Your task to perform on an android device: toggle sleep mode Image 0: 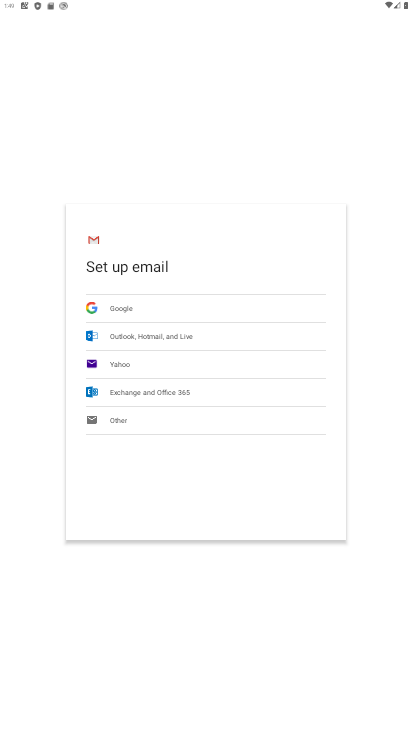
Step 0: press home button
Your task to perform on an android device: toggle sleep mode Image 1: 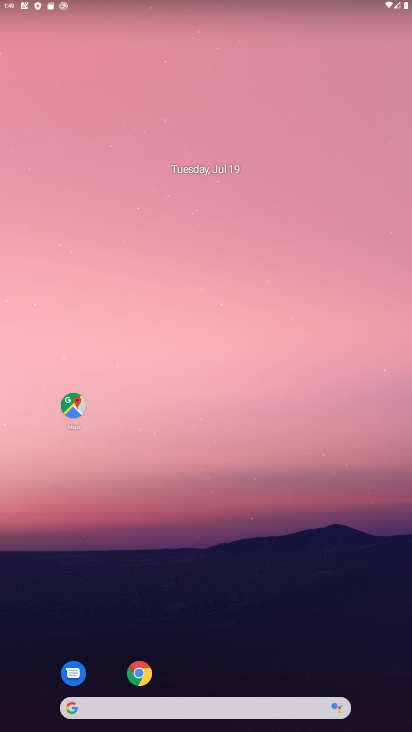
Step 1: drag from (214, 632) to (206, 236)
Your task to perform on an android device: toggle sleep mode Image 2: 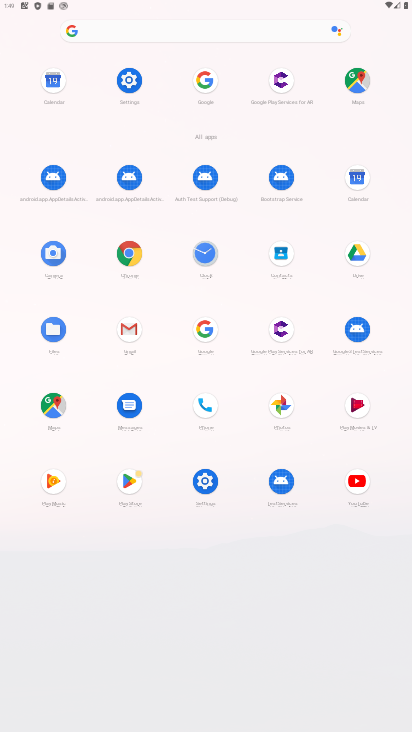
Step 2: click (203, 483)
Your task to perform on an android device: toggle sleep mode Image 3: 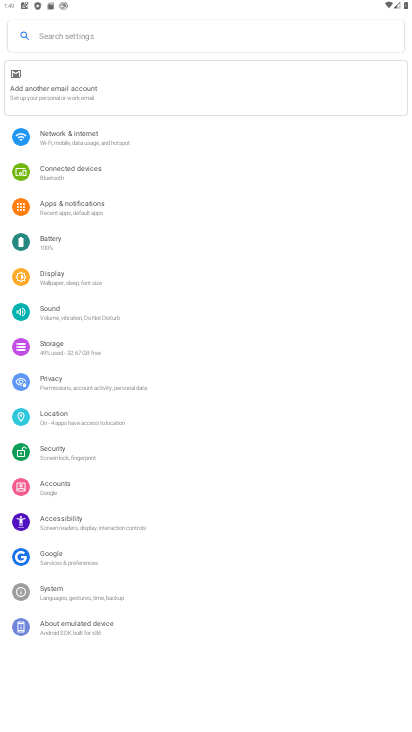
Step 3: click (48, 285)
Your task to perform on an android device: toggle sleep mode Image 4: 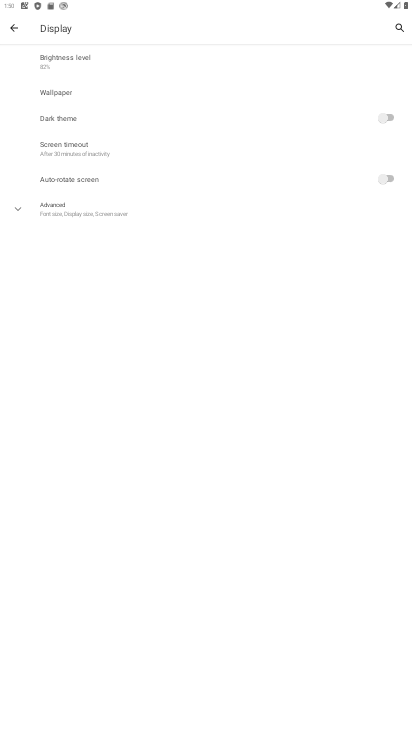
Step 4: click (60, 114)
Your task to perform on an android device: toggle sleep mode Image 5: 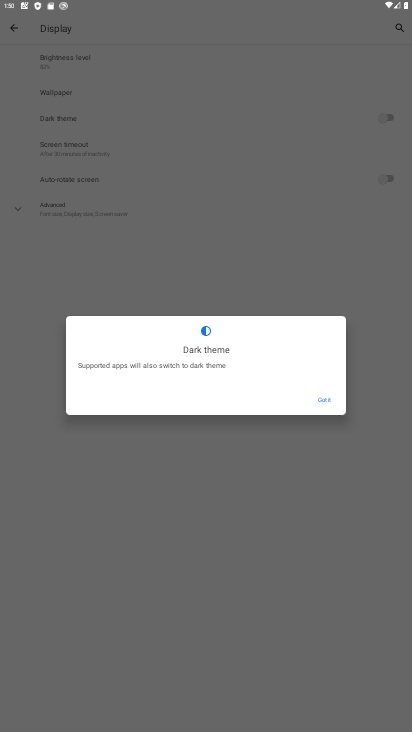
Step 5: click (178, 288)
Your task to perform on an android device: toggle sleep mode Image 6: 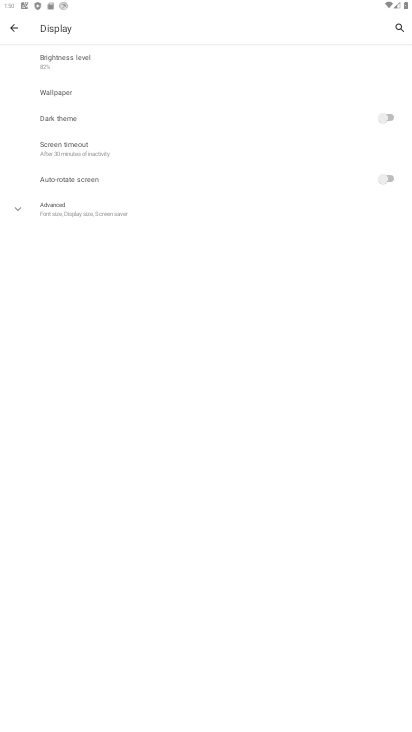
Step 6: click (330, 391)
Your task to perform on an android device: toggle sleep mode Image 7: 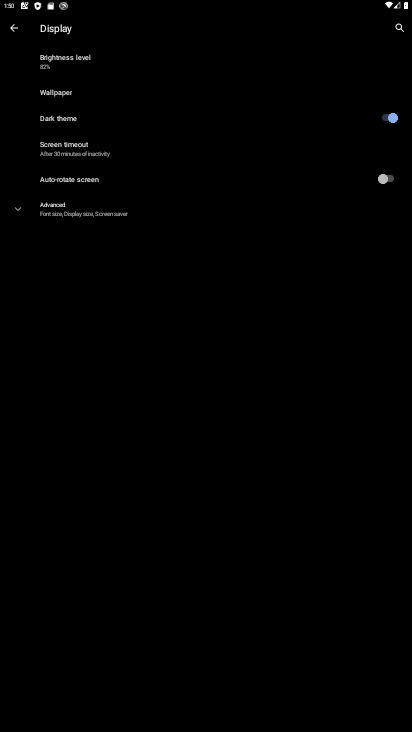
Step 7: task complete